Your task to perform on an android device: open a bookmark in the chrome app Image 0: 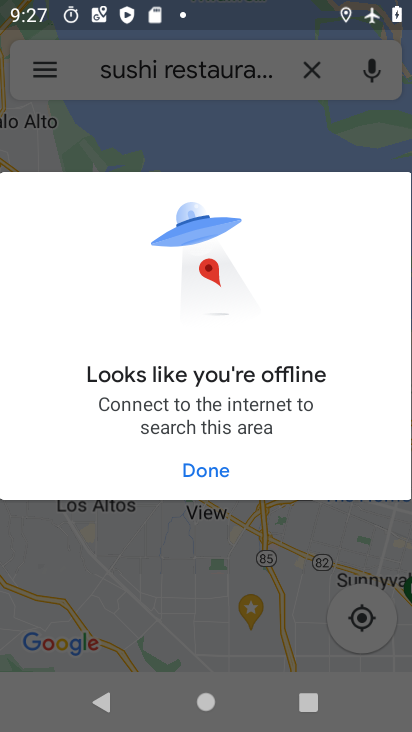
Step 0: press home button
Your task to perform on an android device: open a bookmark in the chrome app Image 1: 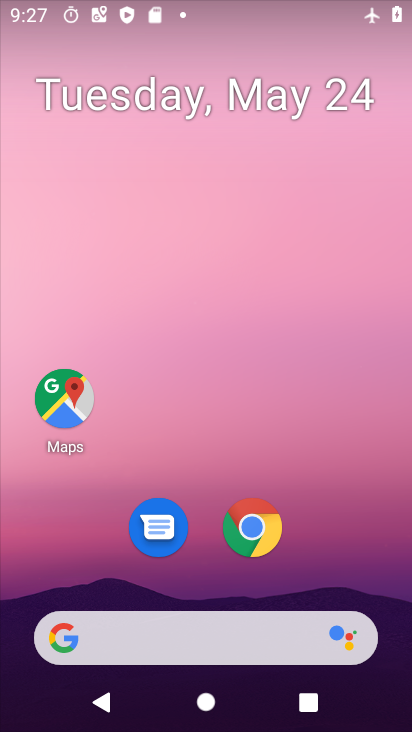
Step 1: click (261, 534)
Your task to perform on an android device: open a bookmark in the chrome app Image 2: 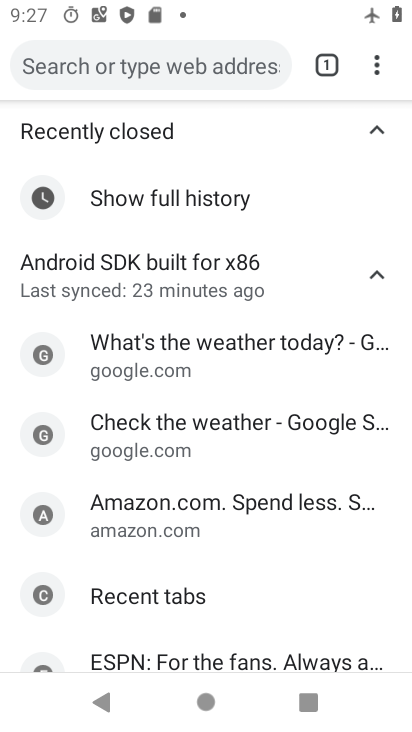
Step 2: click (372, 66)
Your task to perform on an android device: open a bookmark in the chrome app Image 3: 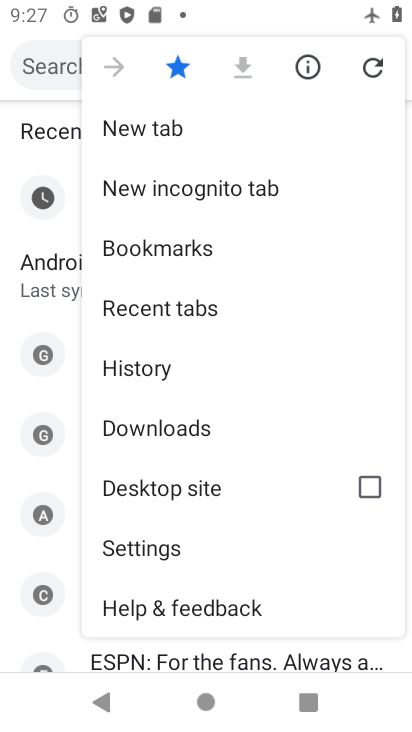
Step 3: click (156, 243)
Your task to perform on an android device: open a bookmark in the chrome app Image 4: 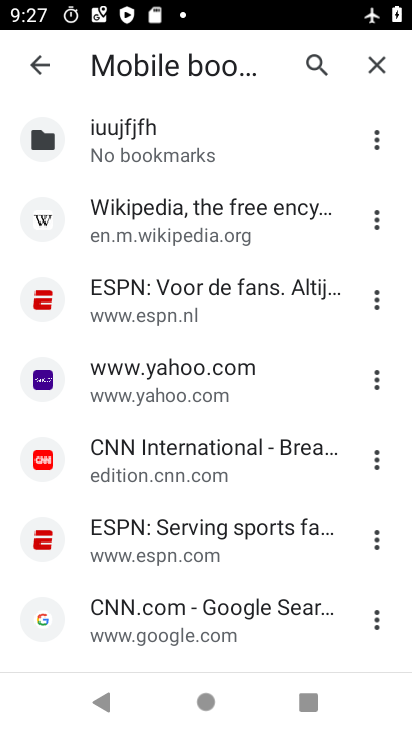
Step 4: click (157, 373)
Your task to perform on an android device: open a bookmark in the chrome app Image 5: 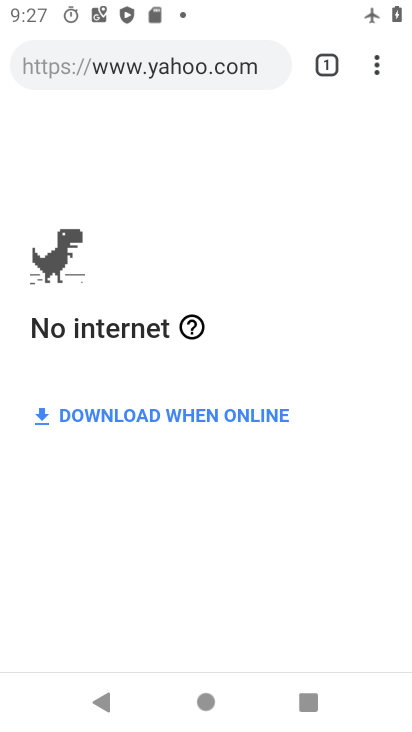
Step 5: task complete